Your task to perform on an android device: Open accessibility settings Image 0: 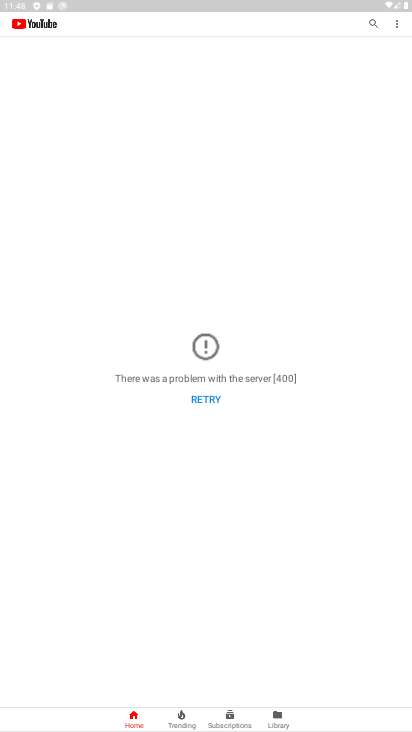
Step 0: press home button
Your task to perform on an android device: Open accessibility settings Image 1: 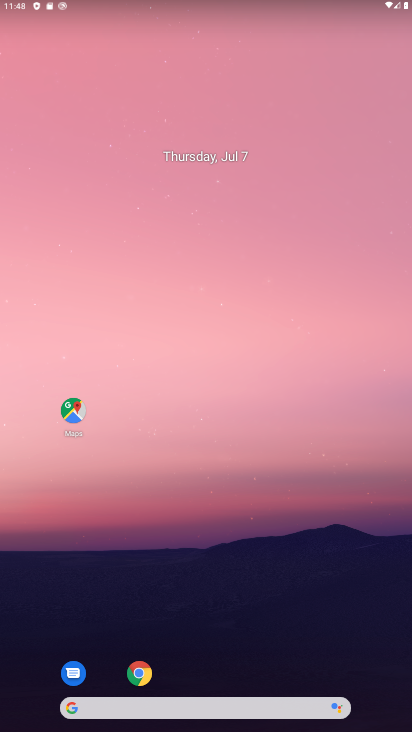
Step 1: drag from (209, 642) to (266, 227)
Your task to perform on an android device: Open accessibility settings Image 2: 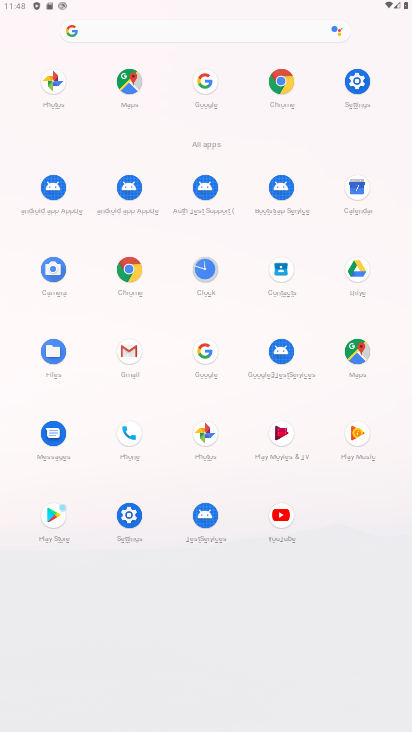
Step 2: click (136, 528)
Your task to perform on an android device: Open accessibility settings Image 3: 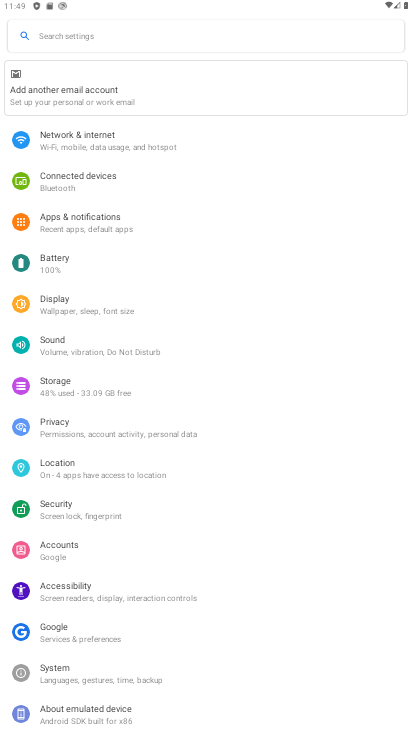
Step 3: click (99, 600)
Your task to perform on an android device: Open accessibility settings Image 4: 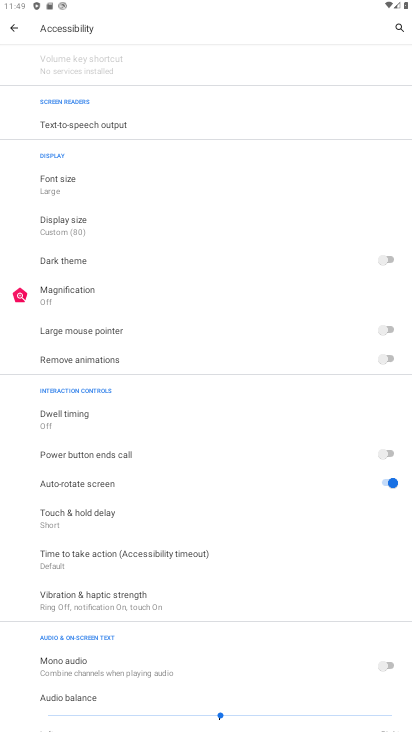
Step 4: task complete